Your task to perform on an android device: Open Maps and search for coffee Image 0: 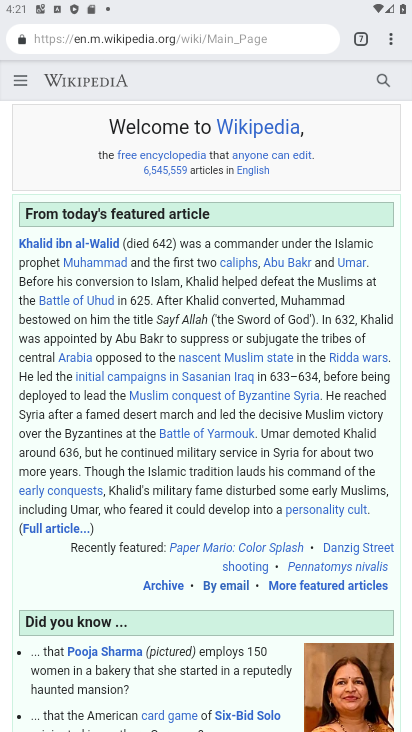
Step 0: press home button
Your task to perform on an android device: Open Maps and search for coffee Image 1: 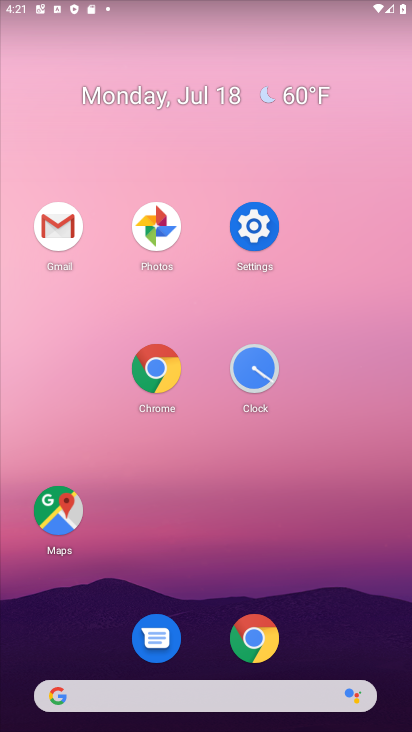
Step 1: click (40, 518)
Your task to perform on an android device: Open Maps and search for coffee Image 2: 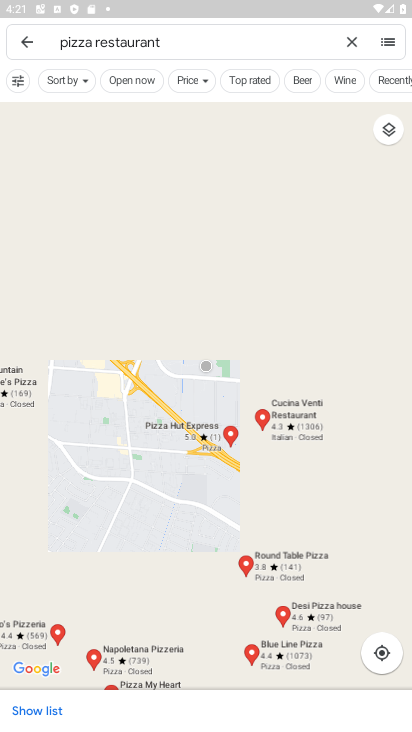
Step 2: click (354, 41)
Your task to perform on an android device: Open Maps and search for coffee Image 3: 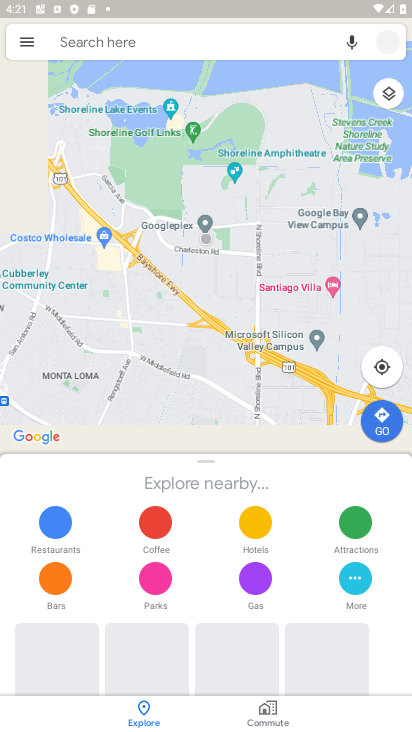
Step 3: click (224, 37)
Your task to perform on an android device: Open Maps and search for coffee Image 4: 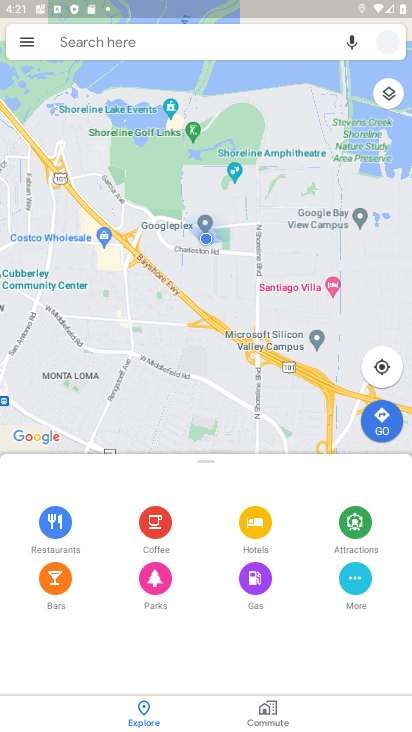
Step 4: click (165, 45)
Your task to perform on an android device: Open Maps and search for coffee Image 5: 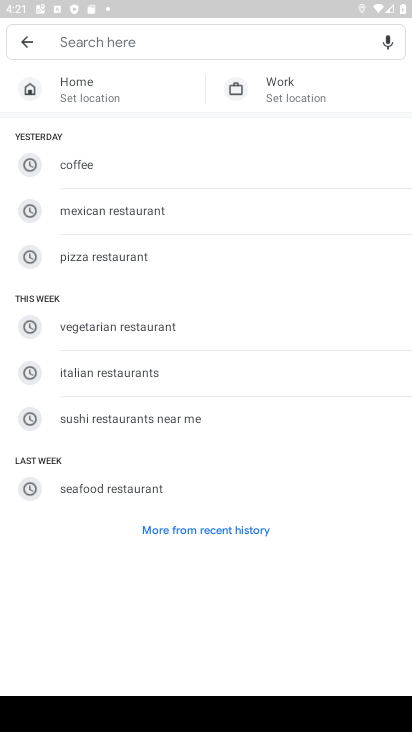
Step 5: click (155, 162)
Your task to perform on an android device: Open Maps and search for coffee Image 6: 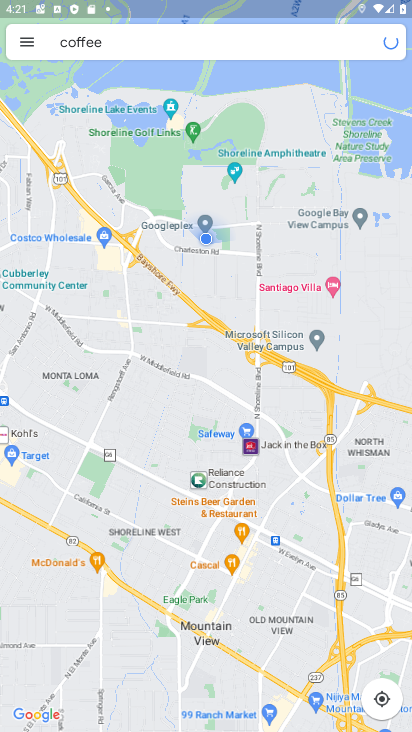
Step 6: task complete